Your task to perform on an android device: Play the last video I watched on Youtube Image 0: 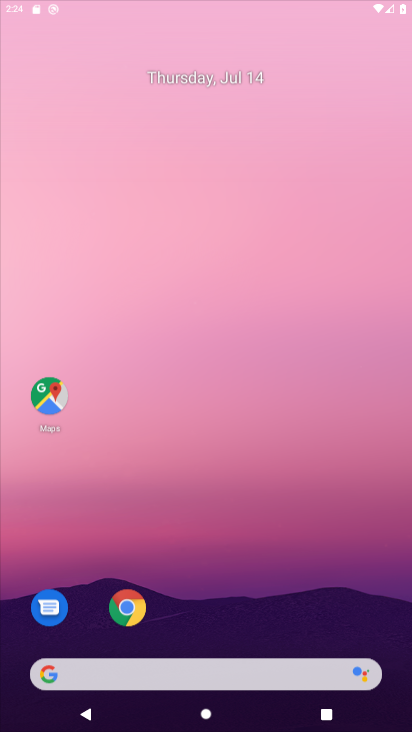
Step 0: press home button
Your task to perform on an android device: Play the last video I watched on Youtube Image 1: 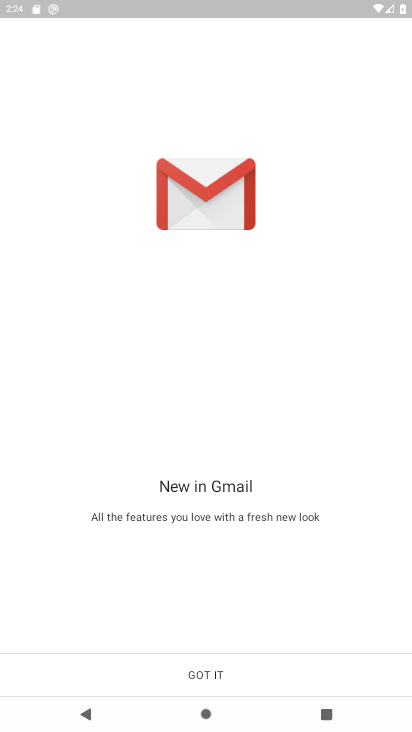
Step 1: drag from (311, 577) to (317, 216)
Your task to perform on an android device: Play the last video I watched on Youtube Image 2: 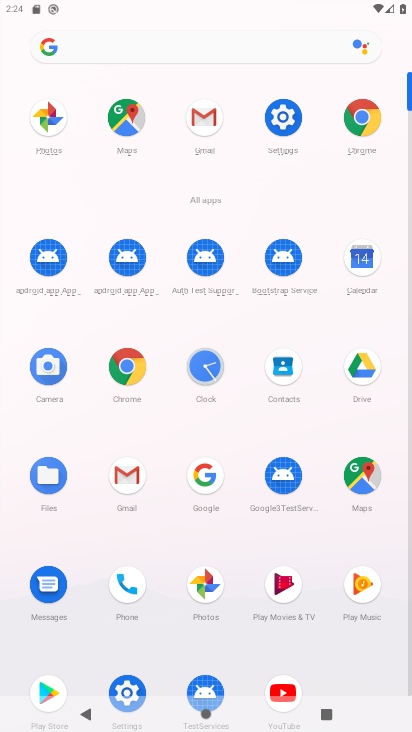
Step 2: click (284, 680)
Your task to perform on an android device: Play the last video I watched on Youtube Image 3: 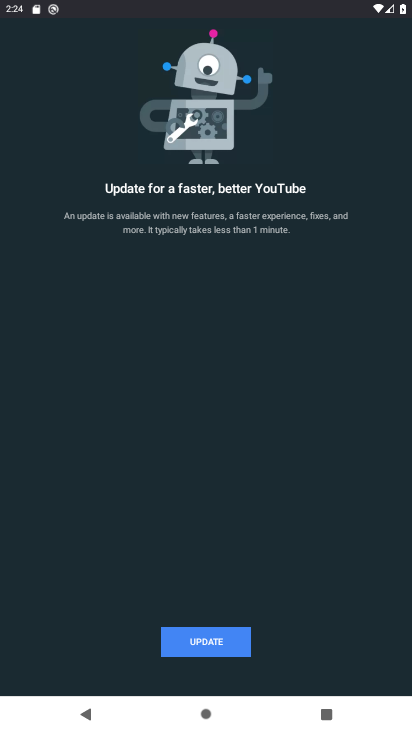
Step 3: click (180, 628)
Your task to perform on an android device: Play the last video I watched on Youtube Image 4: 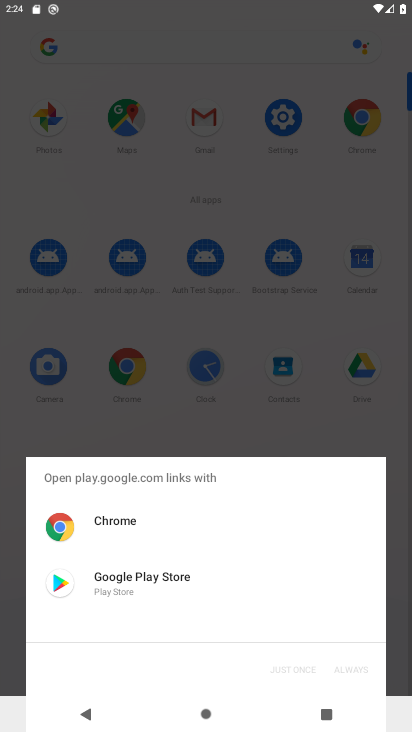
Step 4: click (180, 583)
Your task to perform on an android device: Play the last video I watched on Youtube Image 5: 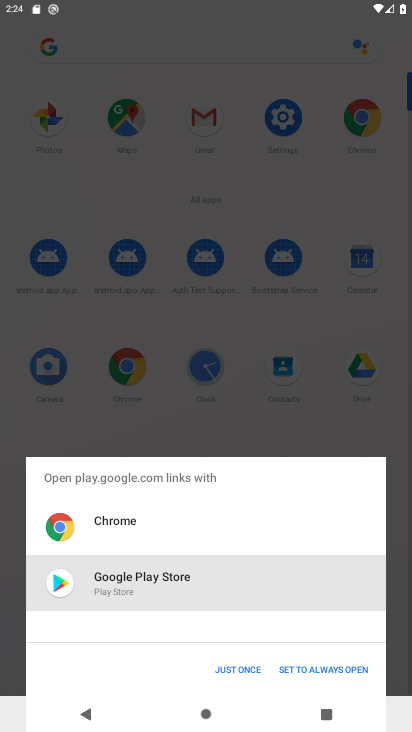
Step 5: click (214, 661)
Your task to perform on an android device: Play the last video I watched on Youtube Image 6: 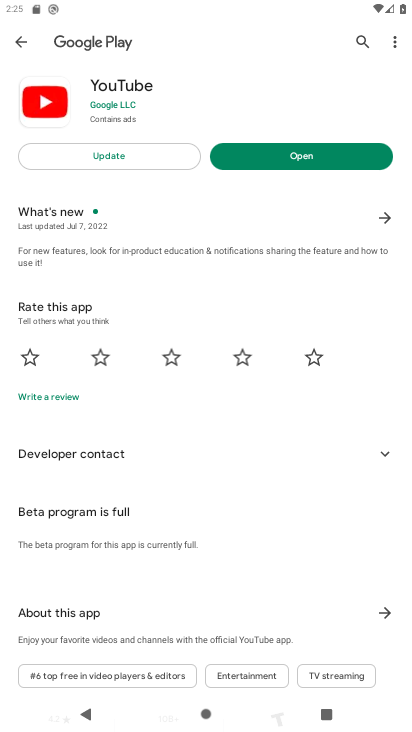
Step 6: click (287, 151)
Your task to perform on an android device: Play the last video I watched on Youtube Image 7: 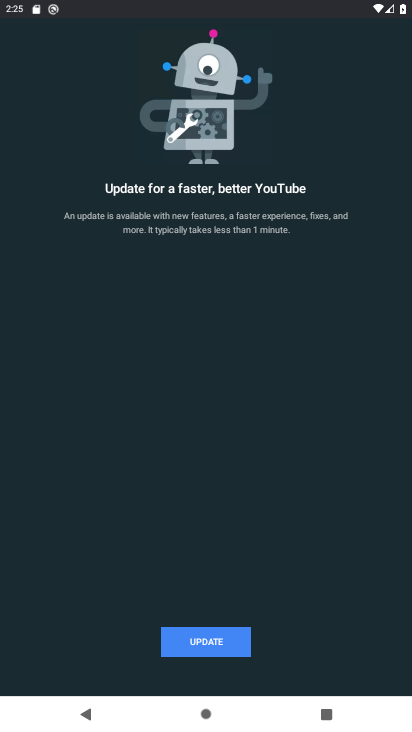
Step 7: click (187, 634)
Your task to perform on an android device: Play the last video I watched on Youtube Image 8: 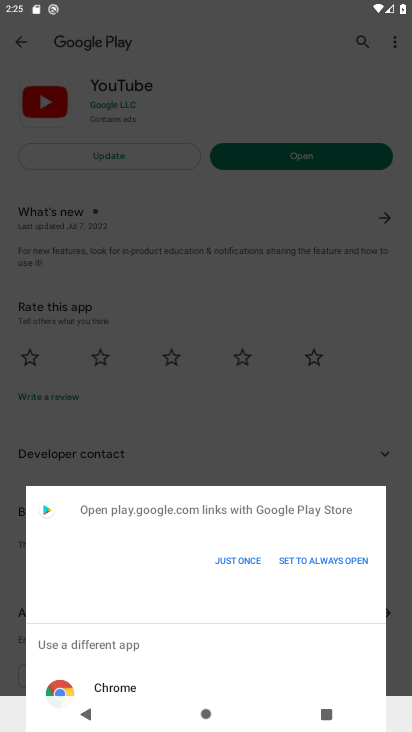
Step 8: click (311, 164)
Your task to perform on an android device: Play the last video I watched on Youtube Image 9: 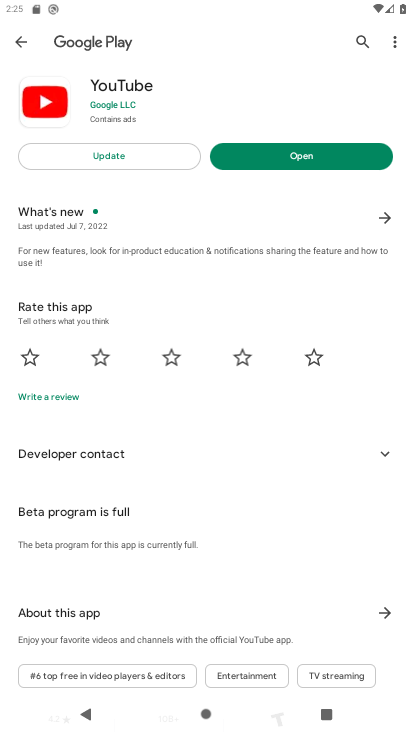
Step 9: click (311, 164)
Your task to perform on an android device: Play the last video I watched on Youtube Image 10: 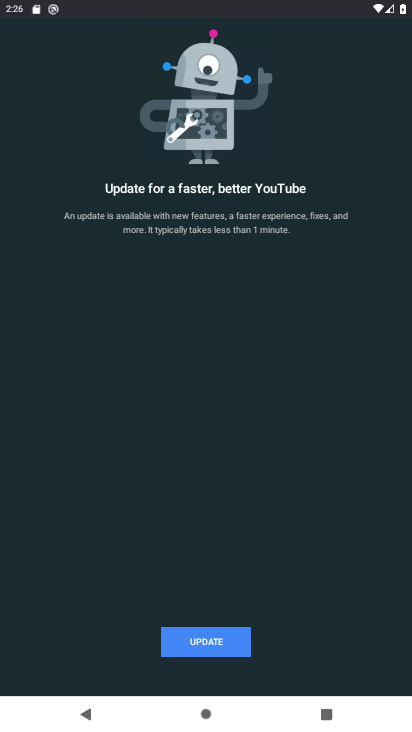
Step 10: click (206, 645)
Your task to perform on an android device: Play the last video I watched on Youtube Image 11: 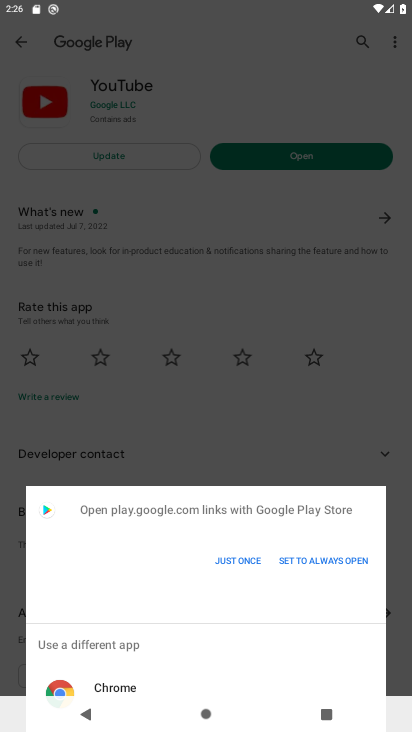
Step 11: click (246, 561)
Your task to perform on an android device: Play the last video I watched on Youtube Image 12: 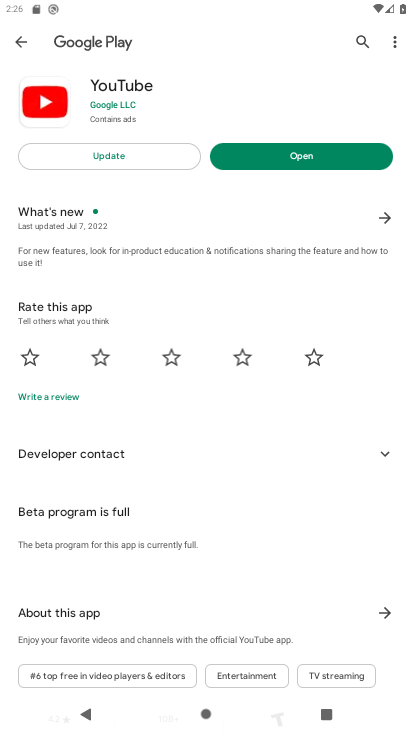
Step 12: click (142, 160)
Your task to perform on an android device: Play the last video I watched on Youtube Image 13: 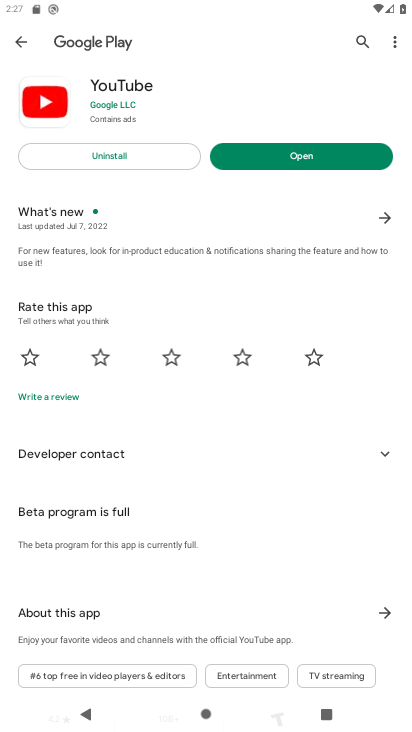
Step 13: click (335, 162)
Your task to perform on an android device: Play the last video I watched on Youtube Image 14: 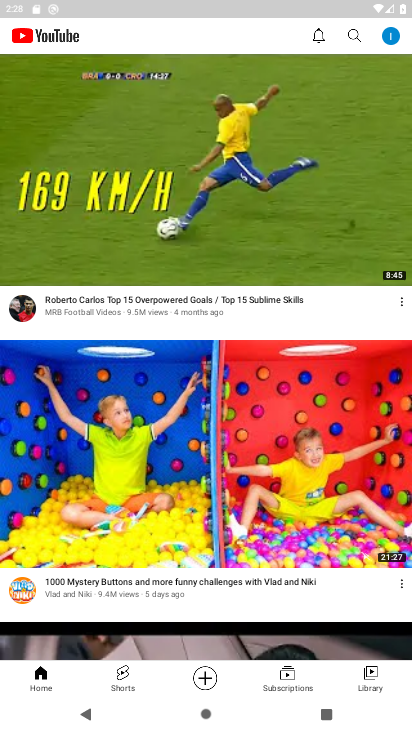
Step 14: click (391, 687)
Your task to perform on an android device: Play the last video I watched on Youtube Image 15: 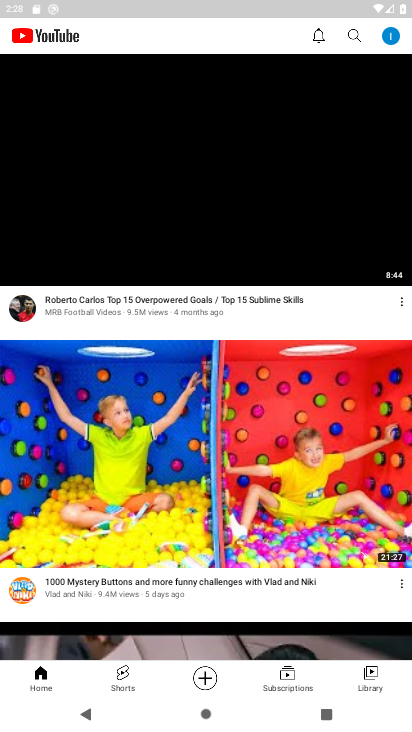
Step 15: click (383, 687)
Your task to perform on an android device: Play the last video I watched on Youtube Image 16: 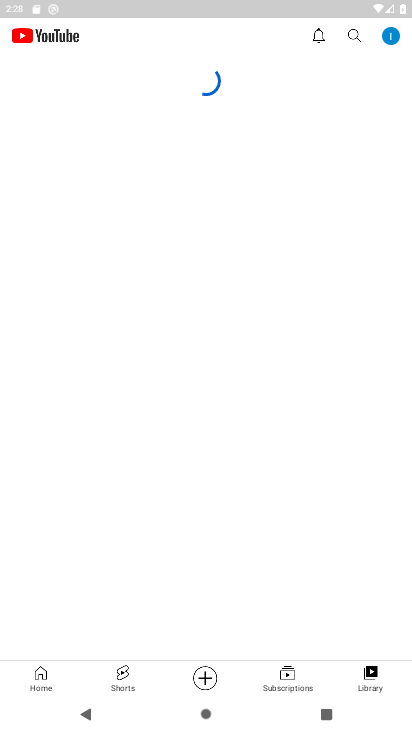
Step 16: click (383, 687)
Your task to perform on an android device: Play the last video I watched on Youtube Image 17: 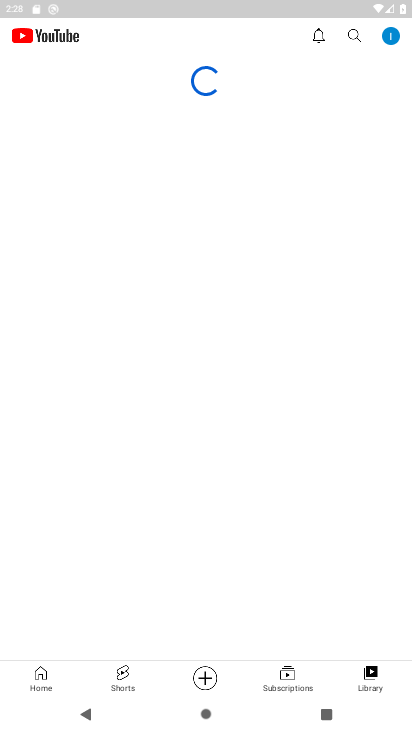
Step 17: click (383, 687)
Your task to perform on an android device: Play the last video I watched on Youtube Image 18: 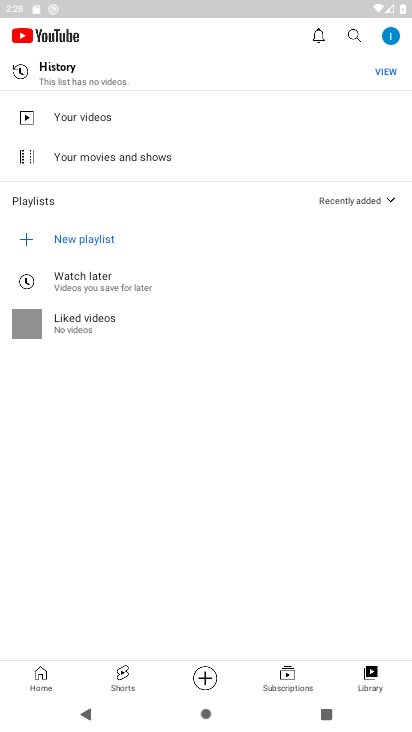
Step 18: task complete